Your task to perform on an android device: Go to network settings Image 0: 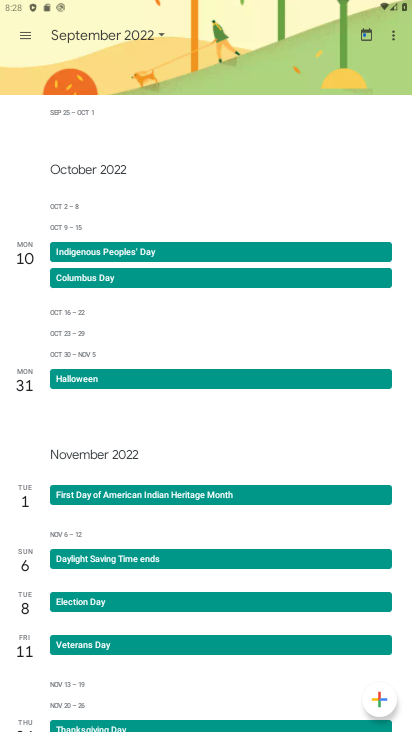
Step 0: press home button
Your task to perform on an android device: Go to network settings Image 1: 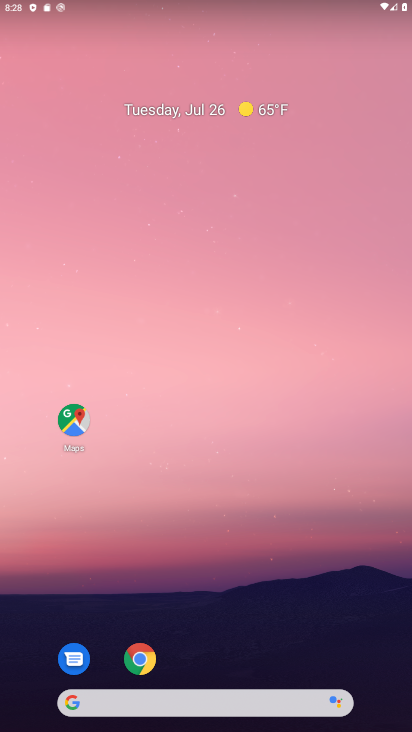
Step 1: drag from (209, 601) to (234, 67)
Your task to perform on an android device: Go to network settings Image 2: 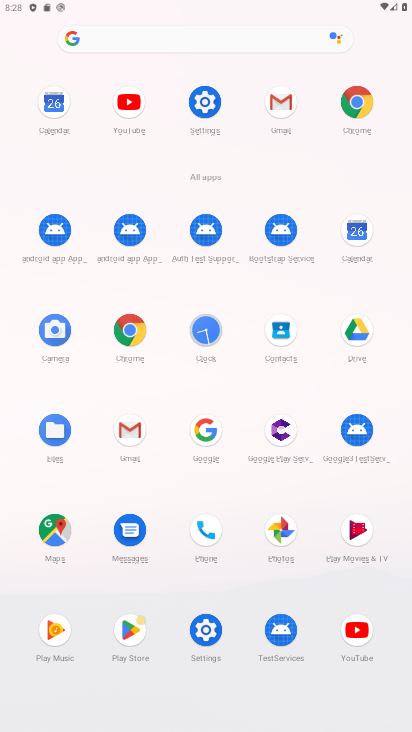
Step 2: click (195, 105)
Your task to perform on an android device: Go to network settings Image 3: 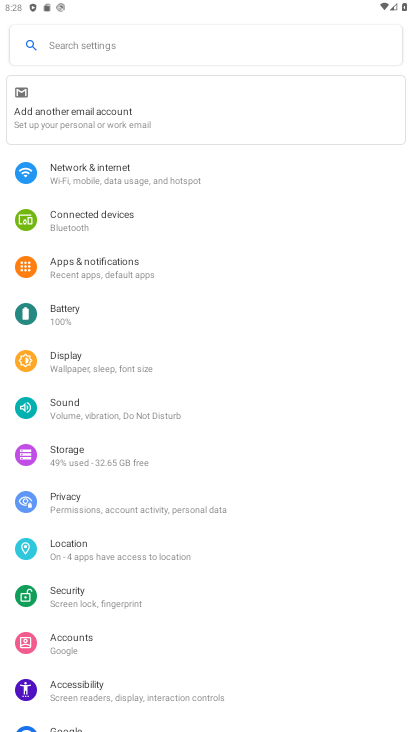
Step 3: click (96, 169)
Your task to perform on an android device: Go to network settings Image 4: 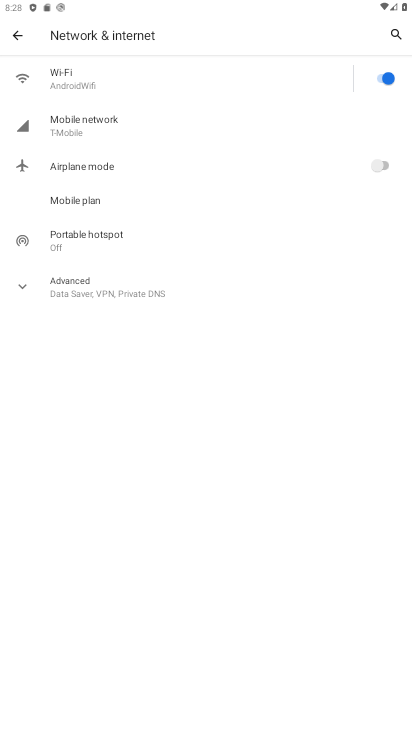
Step 4: task complete